Your task to perform on an android device: View the shopping cart on walmart.com. Add usb-a to the cart on walmart.com Image 0: 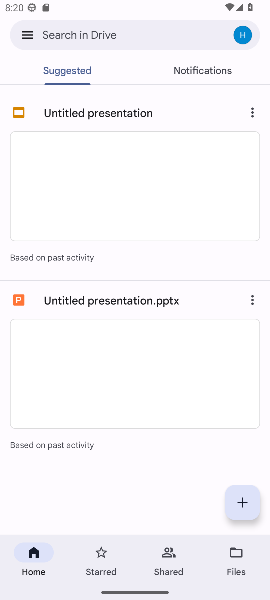
Step 0: press home button
Your task to perform on an android device: View the shopping cart on walmart.com. Add usb-a to the cart on walmart.com Image 1: 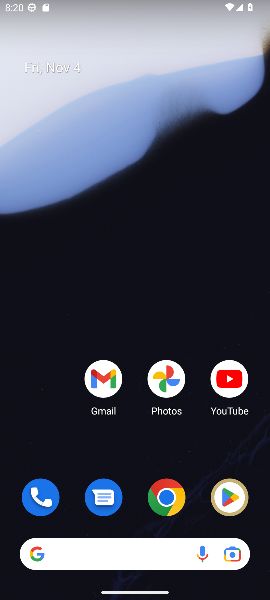
Step 1: click (164, 504)
Your task to perform on an android device: View the shopping cart on walmart.com. Add usb-a to the cart on walmart.com Image 2: 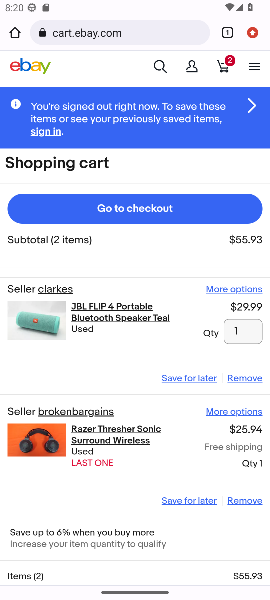
Step 2: click (87, 28)
Your task to perform on an android device: View the shopping cart on walmart.com. Add usb-a to the cart on walmart.com Image 3: 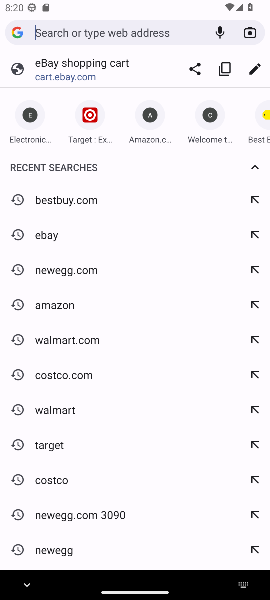
Step 3: click (65, 346)
Your task to perform on an android device: View the shopping cart on walmart.com. Add usb-a to the cart on walmart.com Image 4: 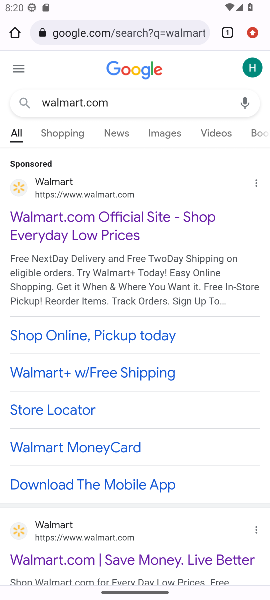
Step 4: click (74, 542)
Your task to perform on an android device: View the shopping cart on walmart.com. Add usb-a to the cart on walmart.com Image 5: 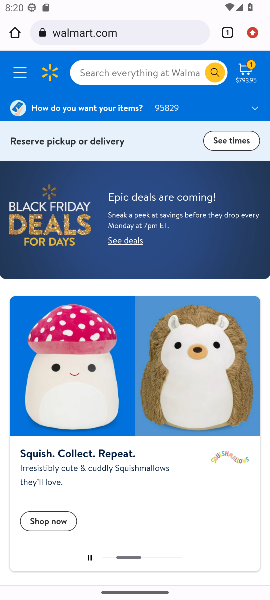
Step 5: click (244, 71)
Your task to perform on an android device: View the shopping cart on walmart.com. Add usb-a to the cart on walmart.com Image 6: 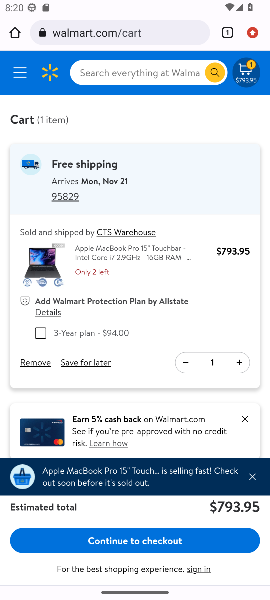
Step 6: click (96, 81)
Your task to perform on an android device: View the shopping cart on walmart.com. Add usb-a to the cart on walmart.com Image 7: 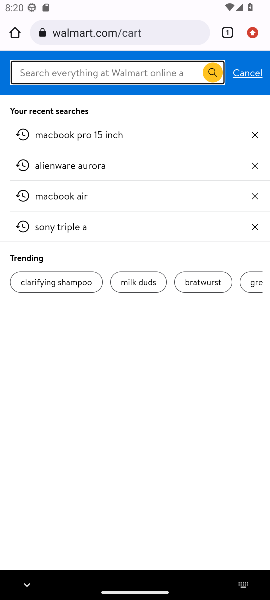
Step 7: type " usb-a"
Your task to perform on an android device: View the shopping cart on walmart.com. Add usb-a to the cart on walmart.com Image 8: 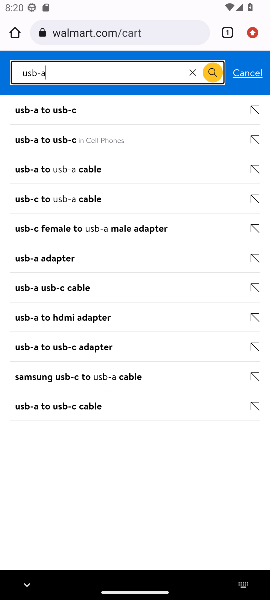
Step 8: click (218, 76)
Your task to perform on an android device: View the shopping cart on walmart.com. Add usb-a to the cart on walmart.com Image 9: 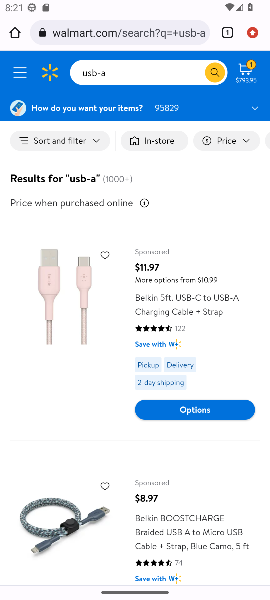
Step 9: click (79, 311)
Your task to perform on an android device: View the shopping cart on walmart.com. Add usb-a to the cart on walmart.com Image 10: 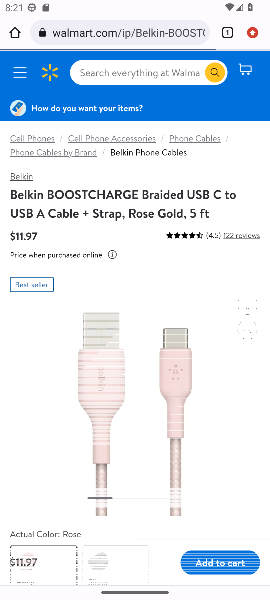
Step 10: drag from (118, 494) to (120, 351)
Your task to perform on an android device: View the shopping cart on walmart.com. Add usb-a to the cart on walmart.com Image 11: 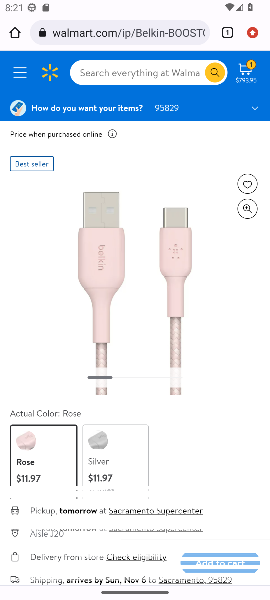
Step 11: click (216, 564)
Your task to perform on an android device: View the shopping cart on walmart.com. Add usb-a to the cart on walmart.com Image 12: 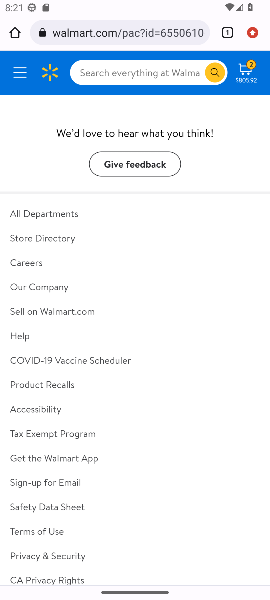
Step 12: task complete